Your task to perform on an android device: Open settings Image 0: 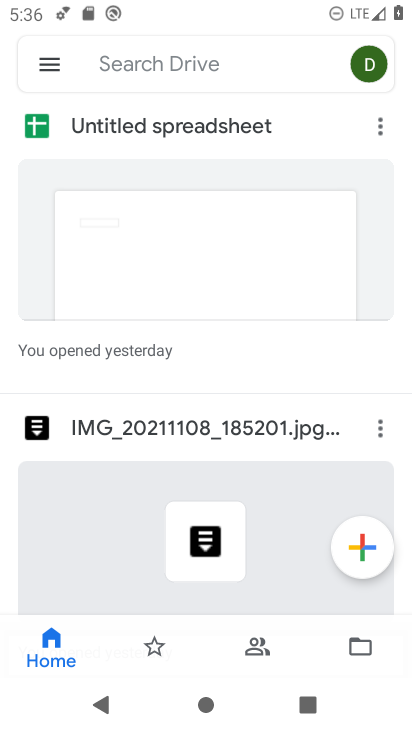
Step 0: press back button
Your task to perform on an android device: Open settings Image 1: 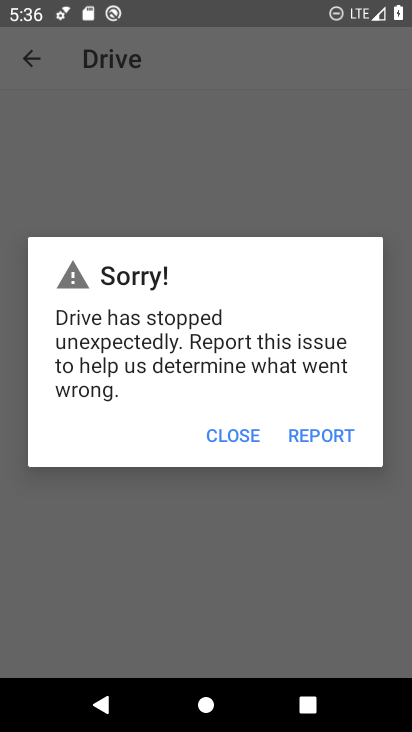
Step 1: press home button
Your task to perform on an android device: Open settings Image 2: 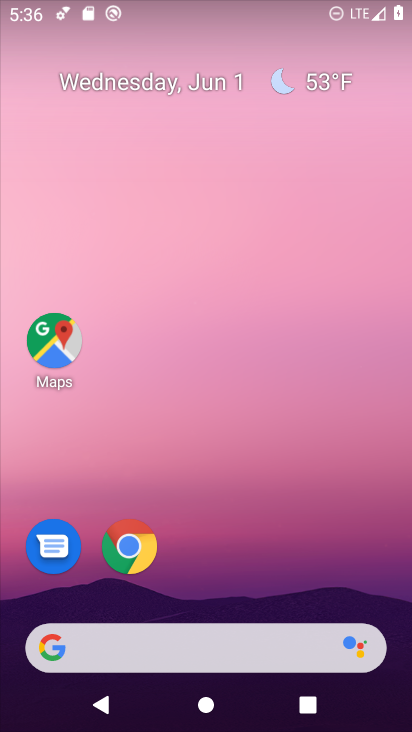
Step 2: drag from (286, 526) to (230, 40)
Your task to perform on an android device: Open settings Image 3: 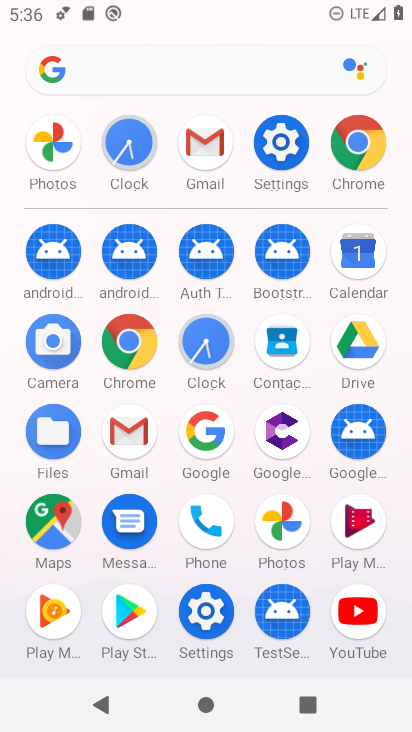
Step 3: click (206, 610)
Your task to perform on an android device: Open settings Image 4: 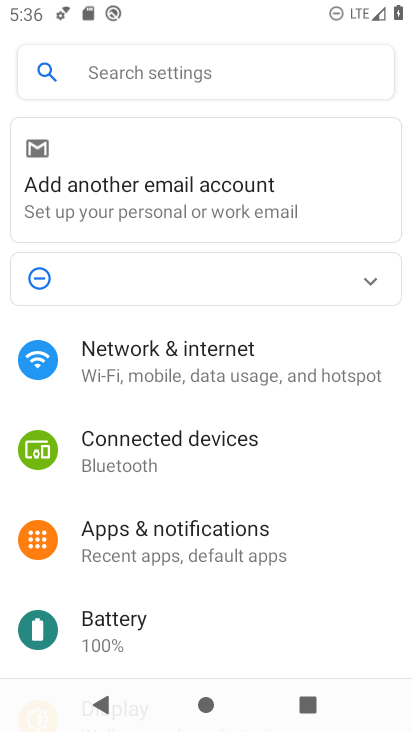
Step 4: task complete